Your task to perform on an android device: Go to accessibility settings Image 0: 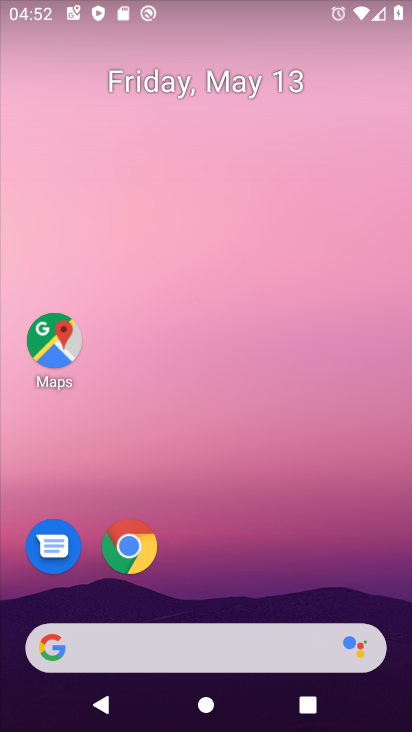
Step 0: drag from (244, 549) to (309, 12)
Your task to perform on an android device: Go to accessibility settings Image 1: 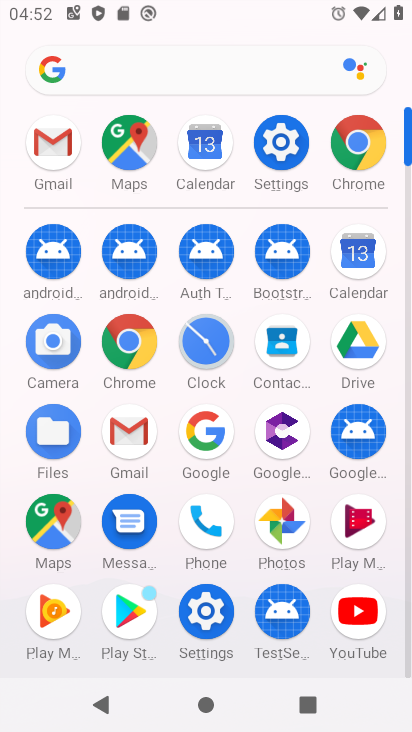
Step 1: click (288, 167)
Your task to perform on an android device: Go to accessibility settings Image 2: 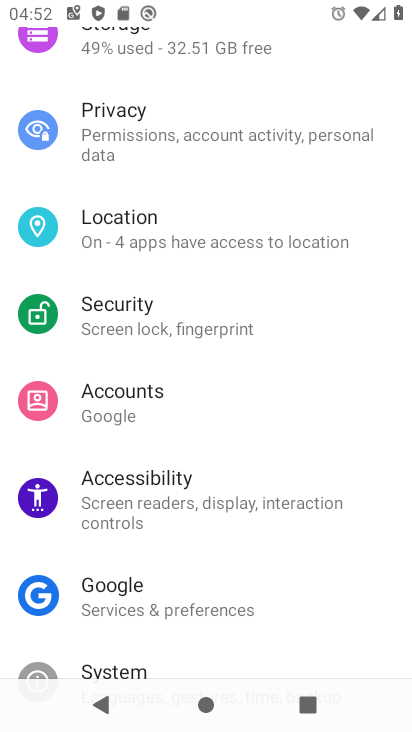
Step 2: click (171, 503)
Your task to perform on an android device: Go to accessibility settings Image 3: 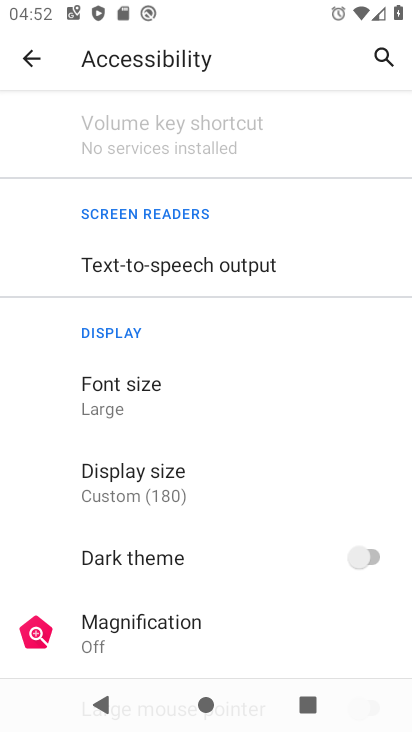
Step 3: task complete